Your task to perform on an android device: delete a single message in the gmail app Image 0: 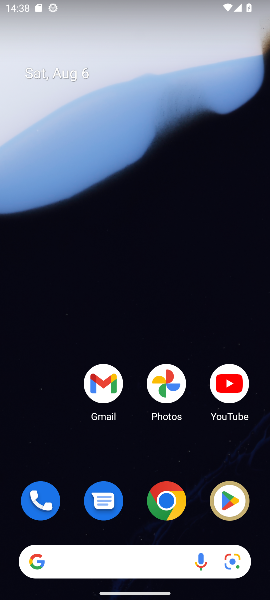
Step 0: press home button
Your task to perform on an android device: delete a single message in the gmail app Image 1: 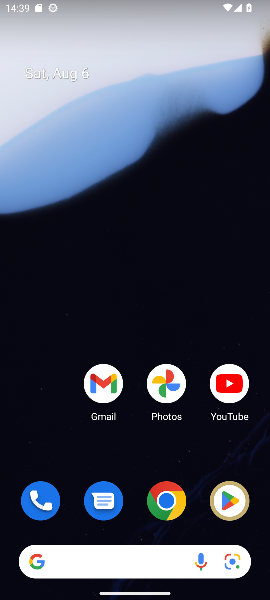
Step 1: drag from (141, 511) to (195, 3)
Your task to perform on an android device: delete a single message in the gmail app Image 2: 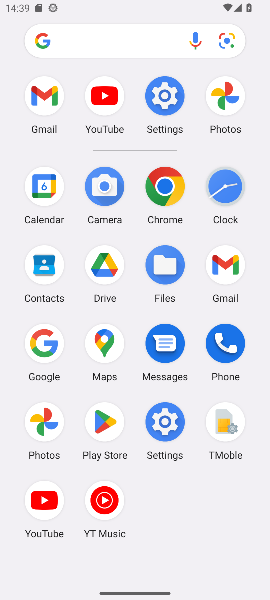
Step 2: click (41, 103)
Your task to perform on an android device: delete a single message in the gmail app Image 3: 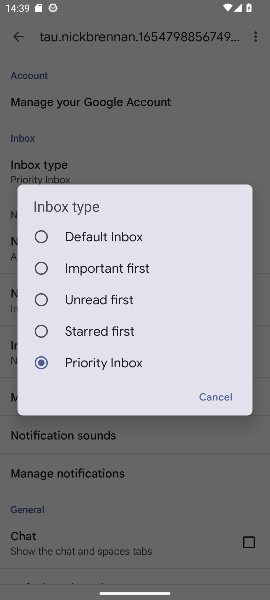
Step 3: click (214, 393)
Your task to perform on an android device: delete a single message in the gmail app Image 4: 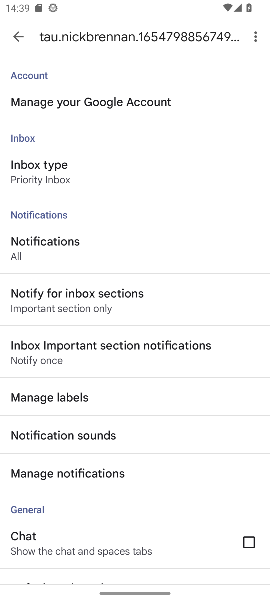
Step 4: click (26, 39)
Your task to perform on an android device: delete a single message in the gmail app Image 5: 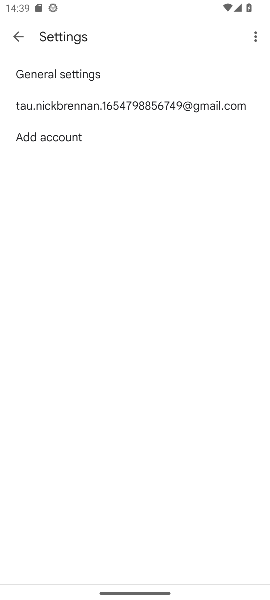
Step 5: click (10, 40)
Your task to perform on an android device: delete a single message in the gmail app Image 6: 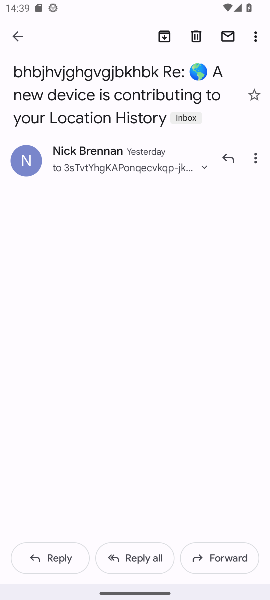
Step 6: click (14, 35)
Your task to perform on an android device: delete a single message in the gmail app Image 7: 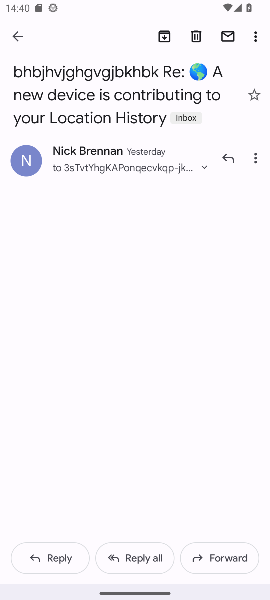
Step 7: click (14, 35)
Your task to perform on an android device: delete a single message in the gmail app Image 8: 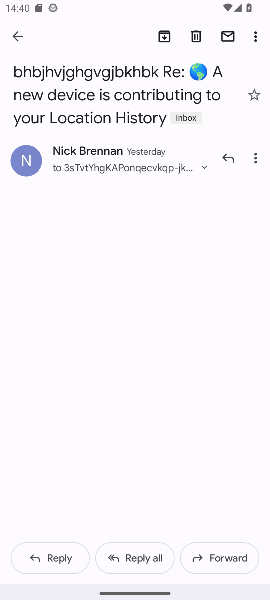
Step 8: press back button
Your task to perform on an android device: delete a single message in the gmail app Image 9: 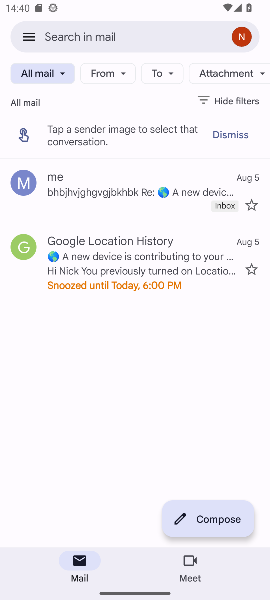
Step 9: click (186, 191)
Your task to perform on an android device: delete a single message in the gmail app Image 10: 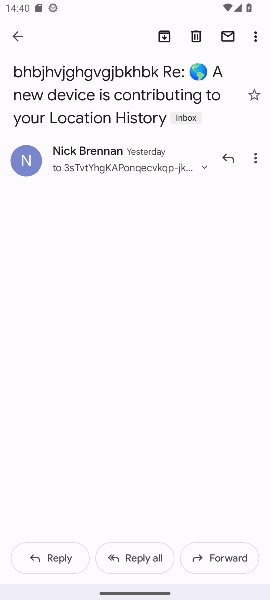
Step 10: click (188, 36)
Your task to perform on an android device: delete a single message in the gmail app Image 11: 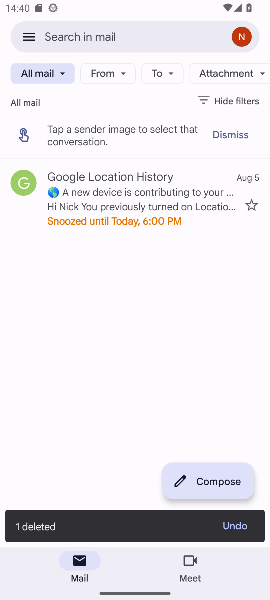
Step 11: task complete